Your task to perform on an android device: turn off airplane mode Image 0: 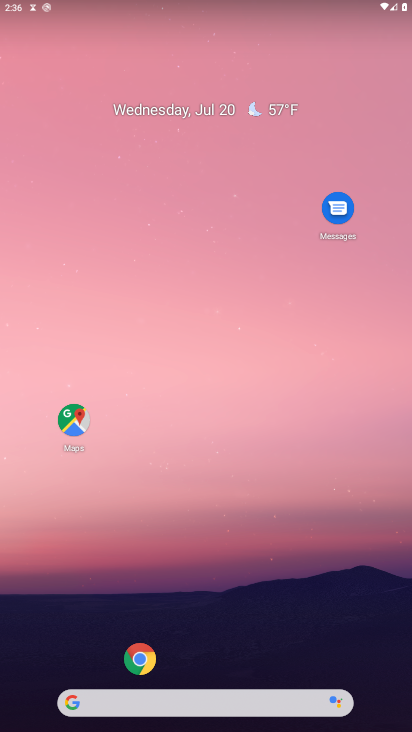
Step 0: drag from (37, 664) to (201, 207)
Your task to perform on an android device: turn off airplane mode Image 1: 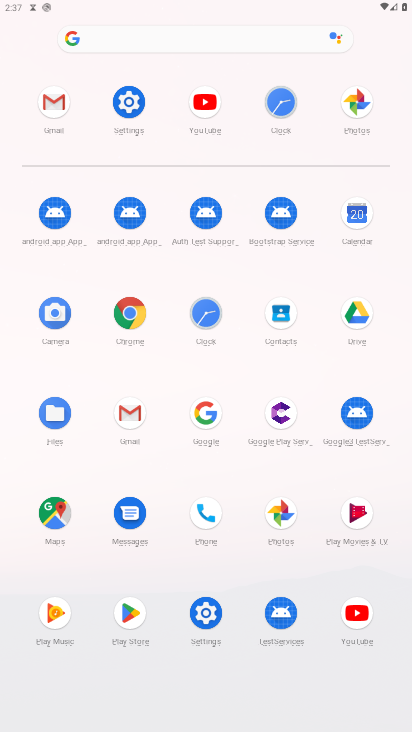
Step 1: click (195, 609)
Your task to perform on an android device: turn off airplane mode Image 2: 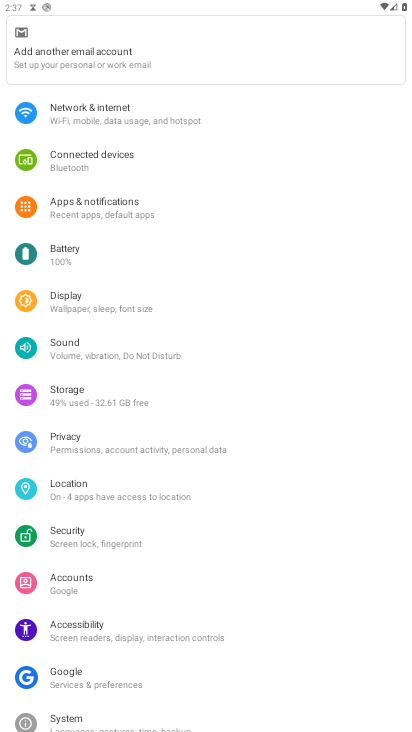
Step 2: click (118, 129)
Your task to perform on an android device: turn off airplane mode Image 3: 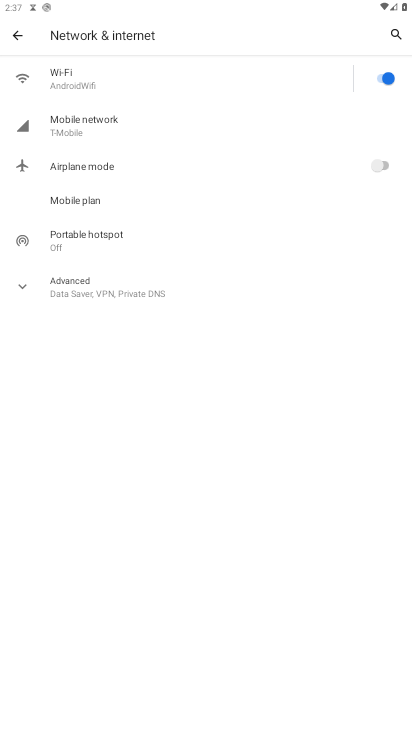
Step 3: click (385, 77)
Your task to perform on an android device: turn off airplane mode Image 4: 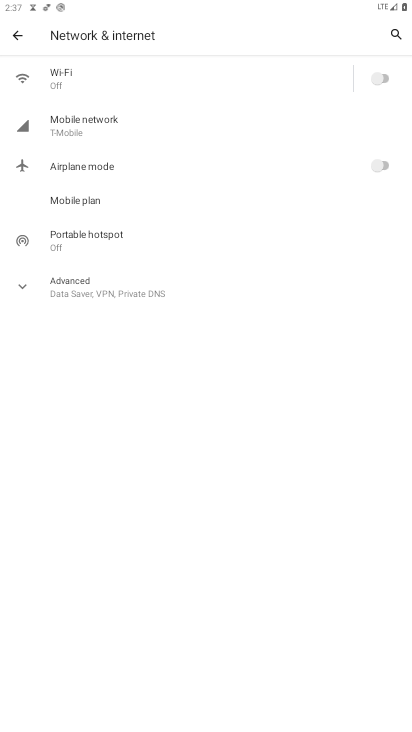
Step 4: task complete